Your task to perform on an android device: Go to network settings Image 0: 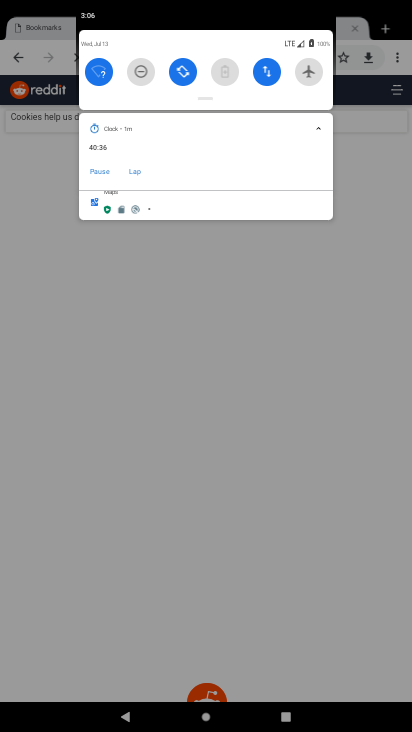
Step 0: press home button
Your task to perform on an android device: Go to network settings Image 1: 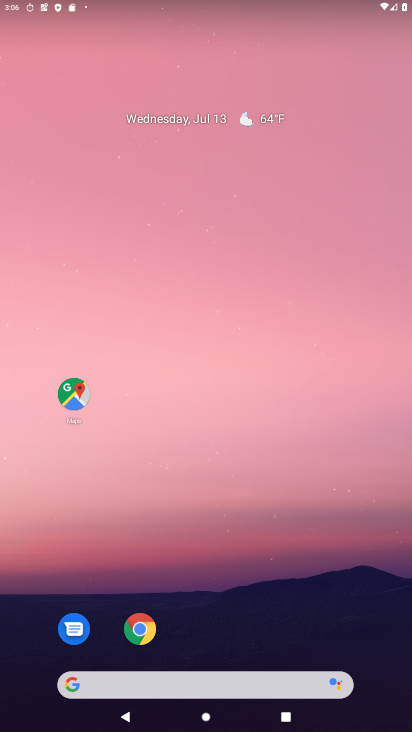
Step 1: drag from (251, 686) to (357, 20)
Your task to perform on an android device: Go to network settings Image 2: 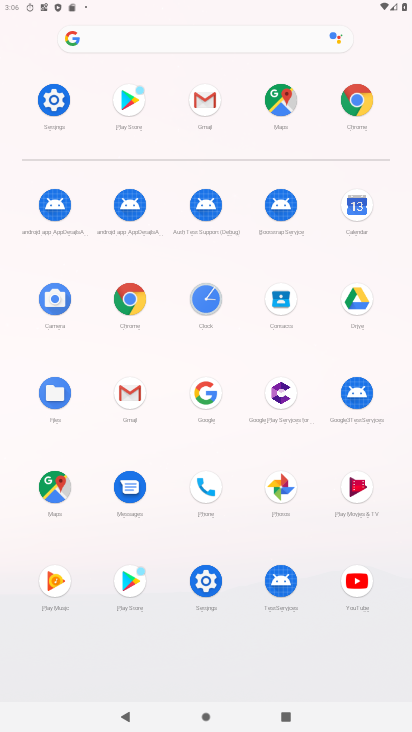
Step 2: click (45, 95)
Your task to perform on an android device: Go to network settings Image 3: 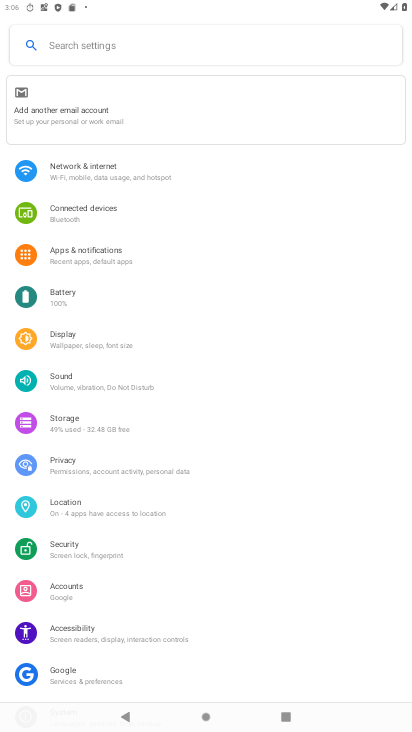
Step 3: click (90, 172)
Your task to perform on an android device: Go to network settings Image 4: 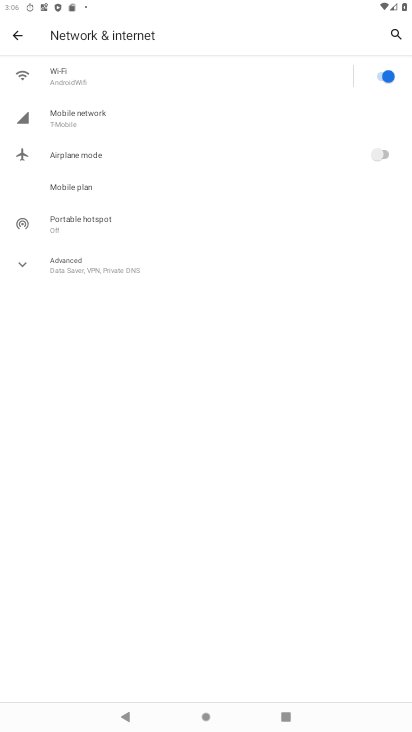
Step 4: task complete